Your task to perform on an android device: uninstall "The Home Depot" Image 0: 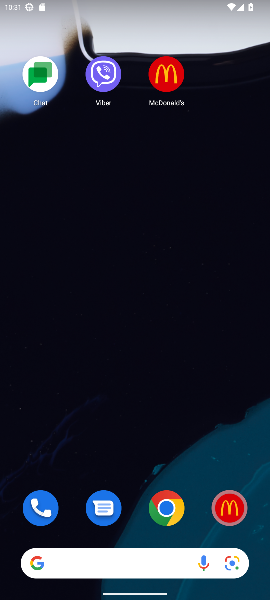
Step 0: drag from (145, 565) to (172, 62)
Your task to perform on an android device: uninstall "The Home Depot" Image 1: 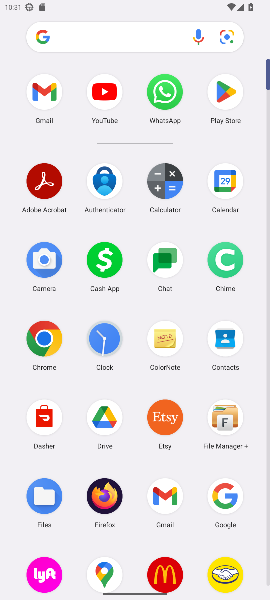
Step 1: click (233, 93)
Your task to perform on an android device: uninstall "The Home Depot" Image 2: 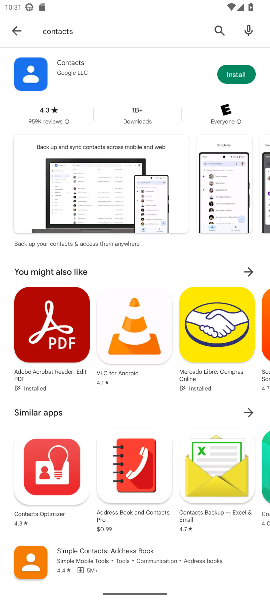
Step 2: click (216, 27)
Your task to perform on an android device: uninstall "The Home Depot" Image 3: 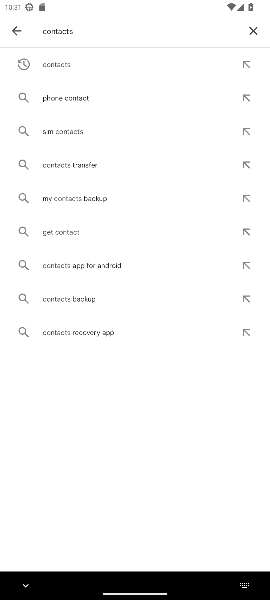
Step 3: click (250, 25)
Your task to perform on an android device: uninstall "The Home Depot" Image 4: 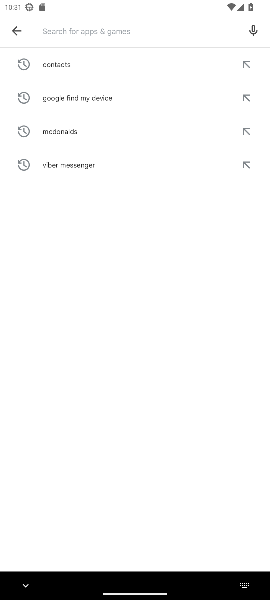
Step 4: type "the home depot"
Your task to perform on an android device: uninstall "The Home Depot" Image 5: 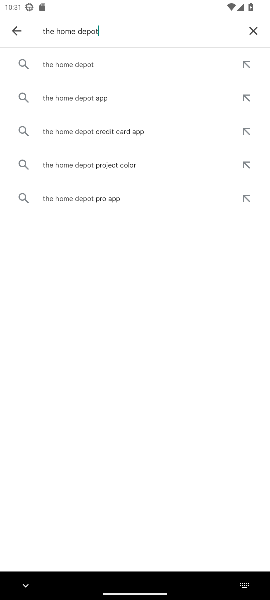
Step 5: click (65, 60)
Your task to perform on an android device: uninstall "The Home Depot" Image 6: 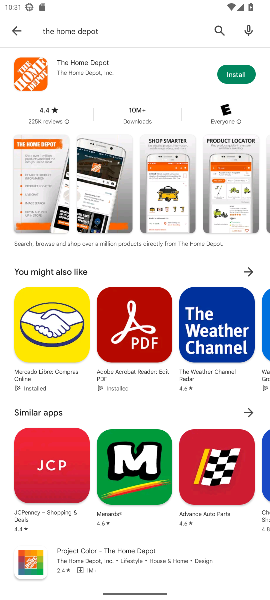
Step 6: task complete